Your task to perform on an android device: Toggle the flashlight Image 0: 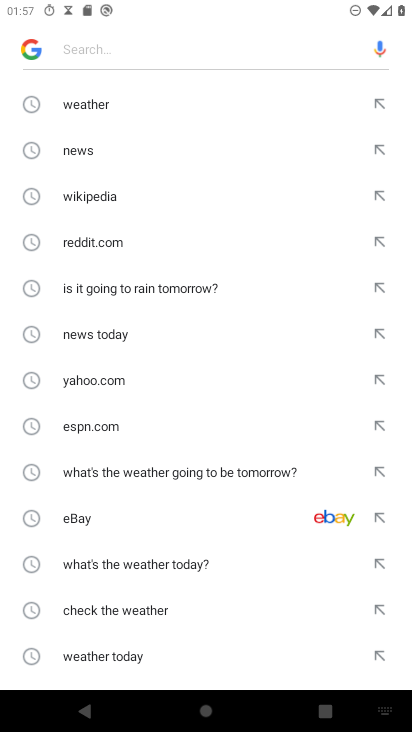
Step 0: press home button
Your task to perform on an android device: Toggle the flashlight Image 1: 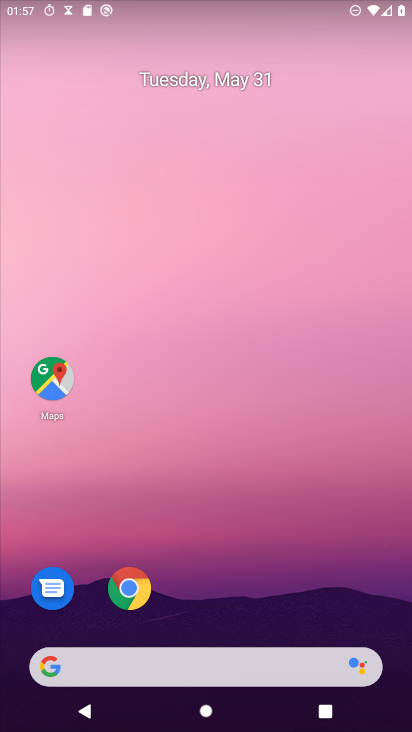
Step 1: drag from (263, 613) to (285, 9)
Your task to perform on an android device: Toggle the flashlight Image 2: 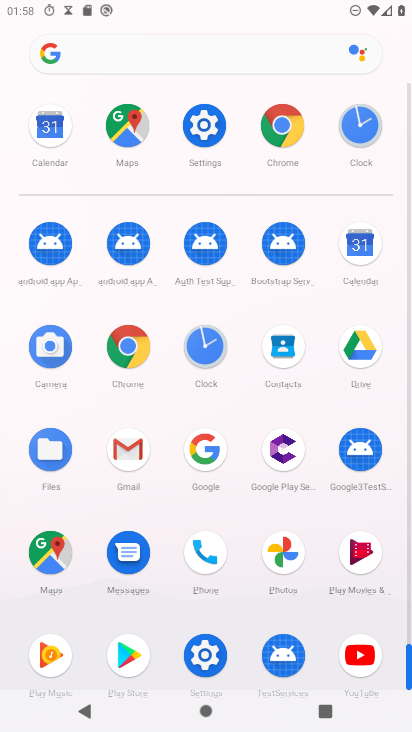
Step 2: click (218, 127)
Your task to perform on an android device: Toggle the flashlight Image 3: 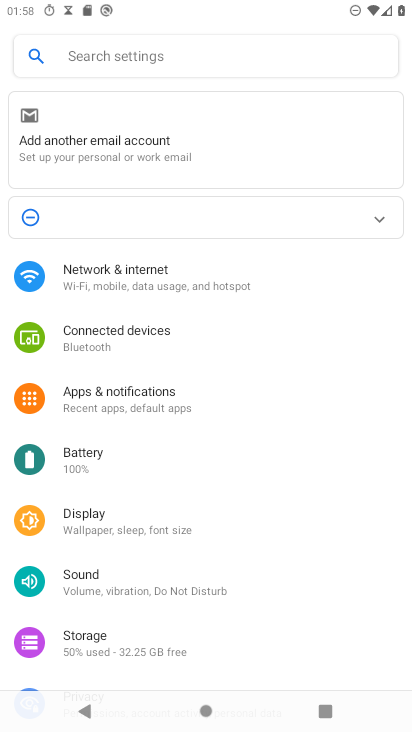
Step 3: press home button
Your task to perform on an android device: Toggle the flashlight Image 4: 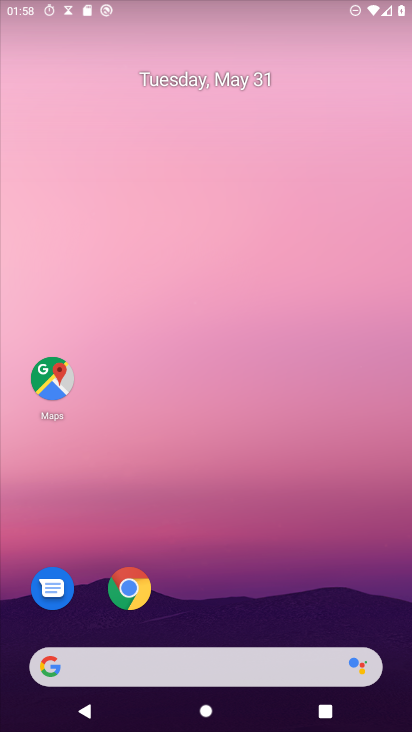
Step 4: drag from (246, 623) to (281, 0)
Your task to perform on an android device: Toggle the flashlight Image 5: 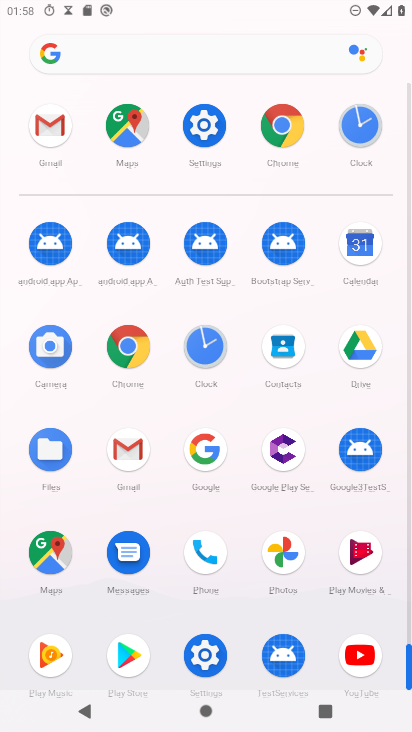
Step 5: click (207, 116)
Your task to perform on an android device: Toggle the flashlight Image 6: 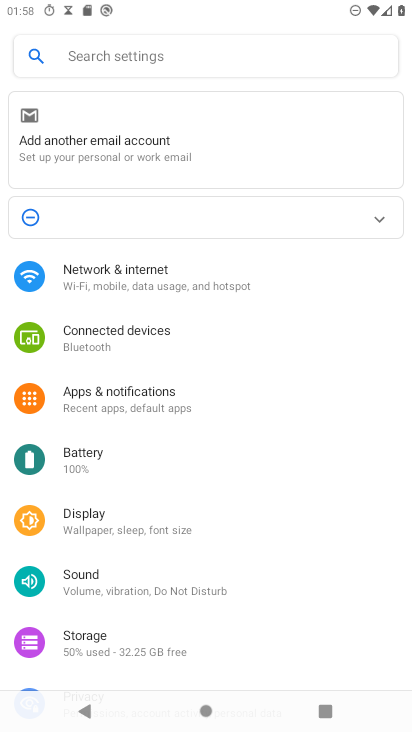
Step 6: task complete